Your task to perform on an android device: move an email to a new category in the gmail app Image 0: 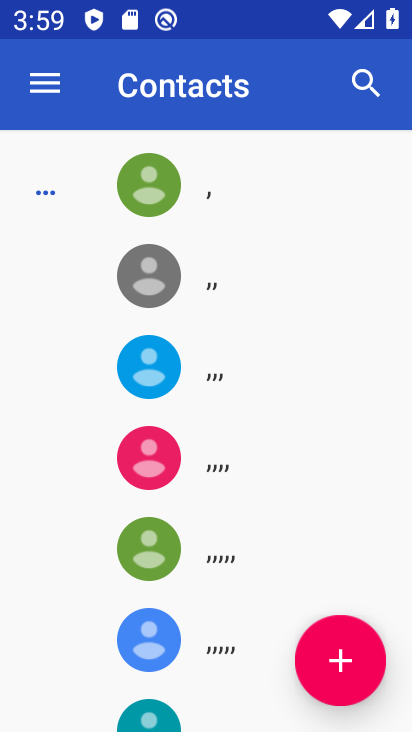
Step 0: press home button
Your task to perform on an android device: move an email to a new category in the gmail app Image 1: 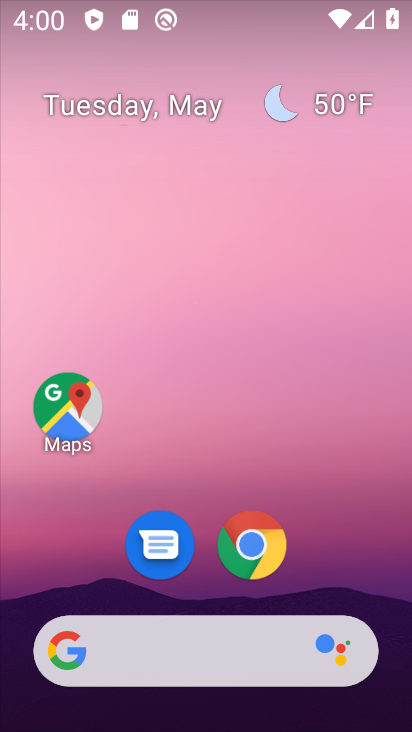
Step 1: drag from (181, 594) to (267, 54)
Your task to perform on an android device: move an email to a new category in the gmail app Image 2: 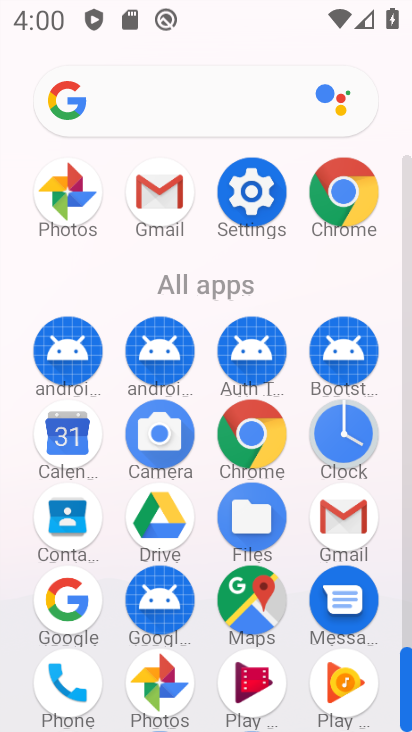
Step 2: drag from (208, 556) to (227, 253)
Your task to perform on an android device: move an email to a new category in the gmail app Image 3: 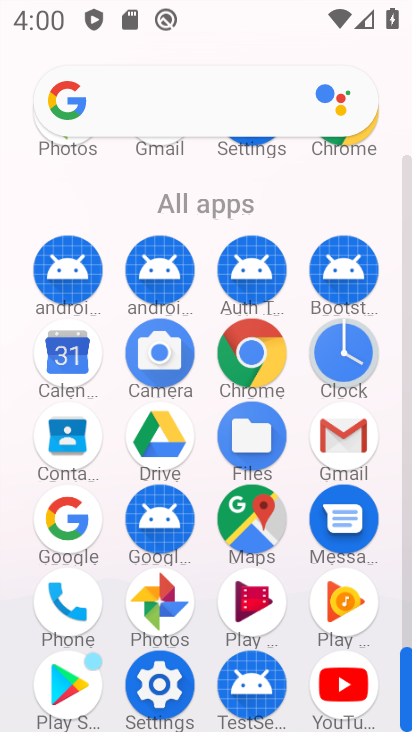
Step 3: click (342, 437)
Your task to perform on an android device: move an email to a new category in the gmail app Image 4: 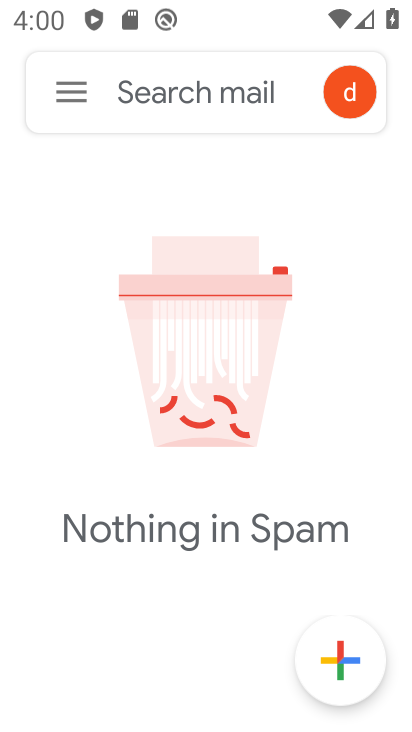
Step 4: click (56, 87)
Your task to perform on an android device: move an email to a new category in the gmail app Image 5: 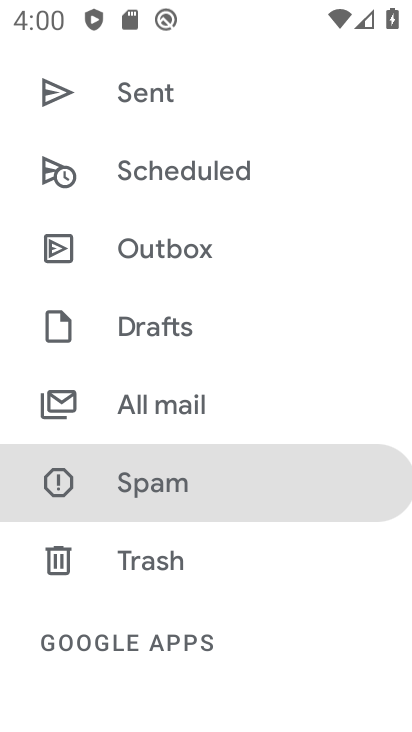
Step 5: click (158, 401)
Your task to perform on an android device: move an email to a new category in the gmail app Image 6: 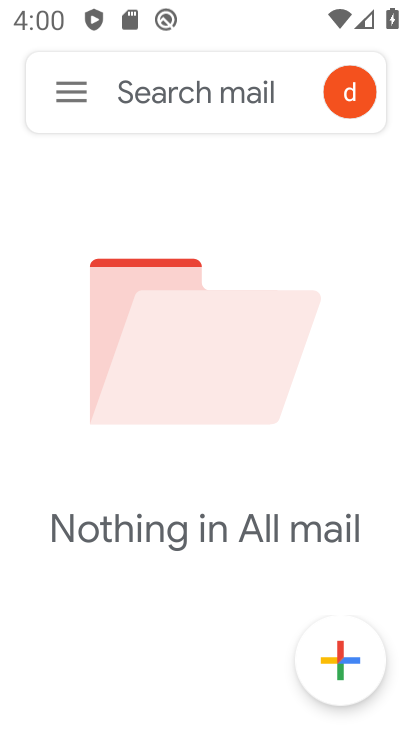
Step 6: task complete